Your task to perform on an android device: See recent photos Image 0: 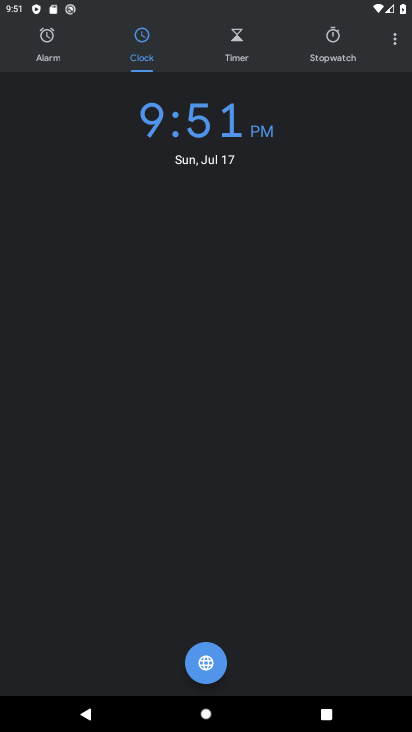
Step 0: press home button
Your task to perform on an android device: See recent photos Image 1: 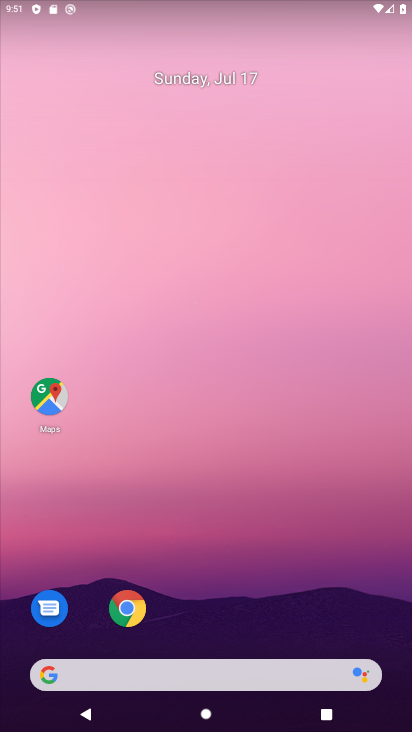
Step 1: drag from (315, 620) to (181, 2)
Your task to perform on an android device: See recent photos Image 2: 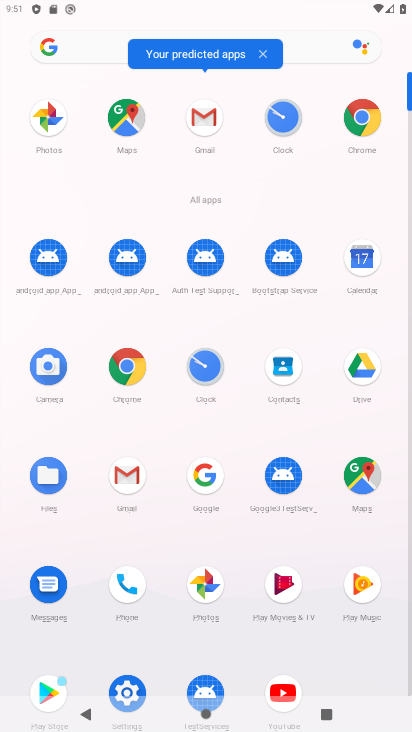
Step 2: click (36, 120)
Your task to perform on an android device: See recent photos Image 3: 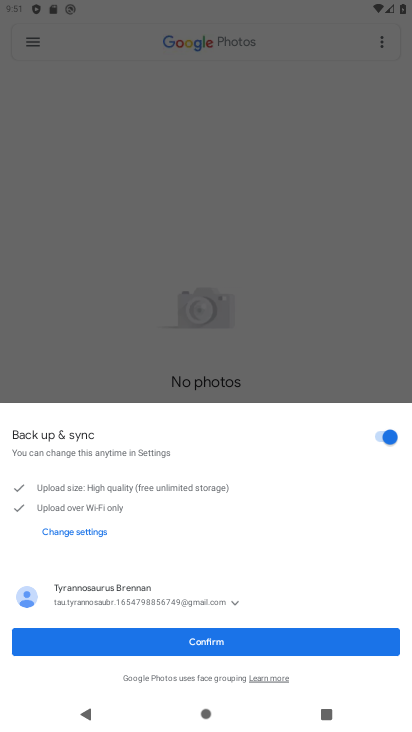
Step 3: click (167, 644)
Your task to perform on an android device: See recent photos Image 4: 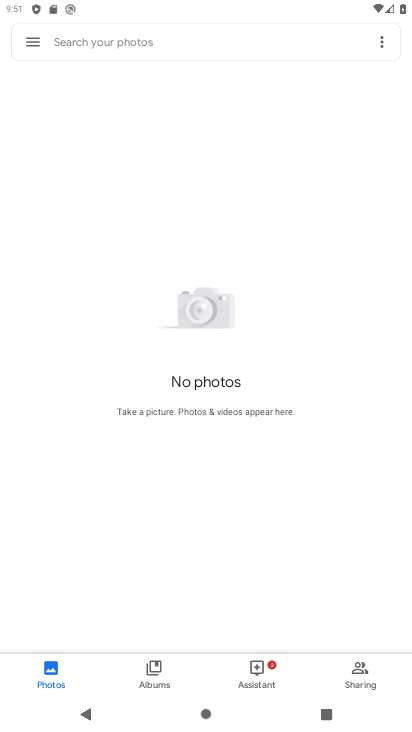
Step 4: click (366, 668)
Your task to perform on an android device: See recent photos Image 5: 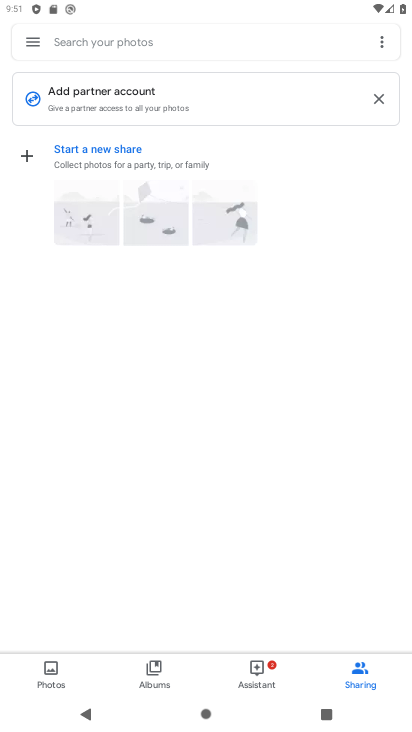
Step 5: click (61, 664)
Your task to perform on an android device: See recent photos Image 6: 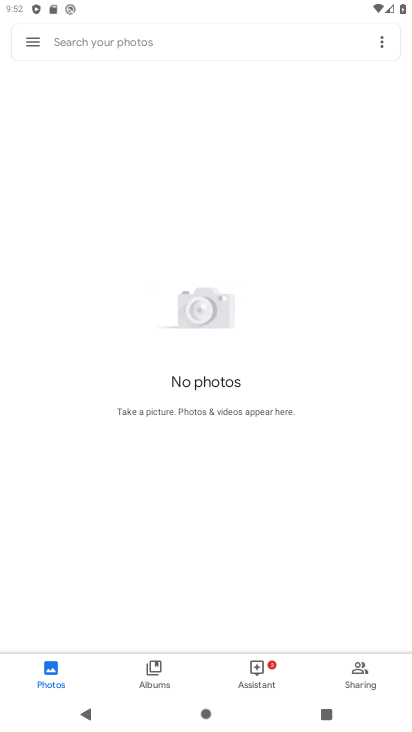
Step 6: task complete